Your task to perform on an android device: change alarm snooze length Image 0: 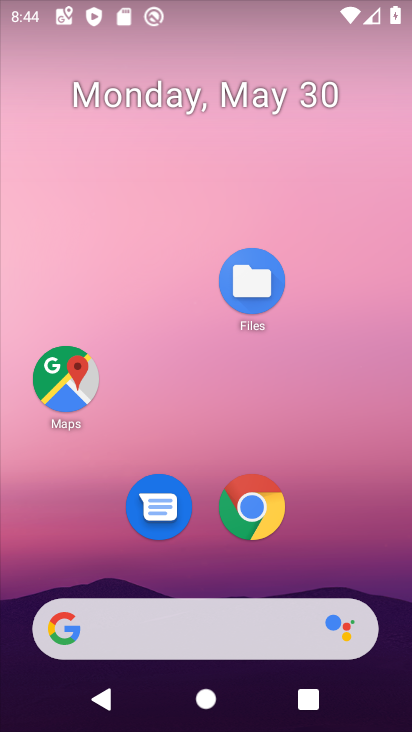
Step 0: drag from (178, 552) to (188, 297)
Your task to perform on an android device: change alarm snooze length Image 1: 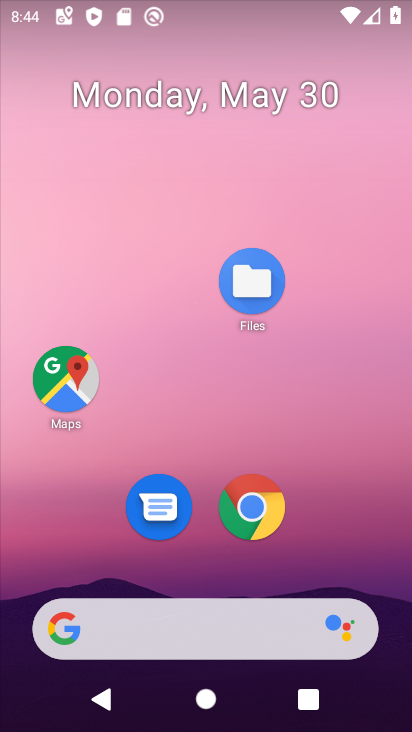
Step 1: drag from (197, 568) to (232, 173)
Your task to perform on an android device: change alarm snooze length Image 2: 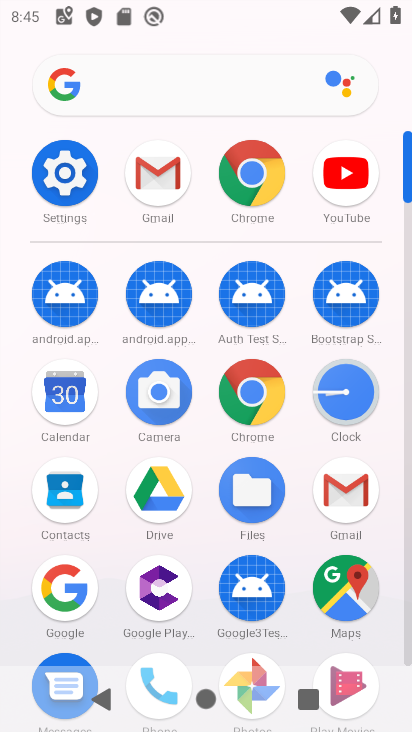
Step 2: click (355, 397)
Your task to perform on an android device: change alarm snooze length Image 3: 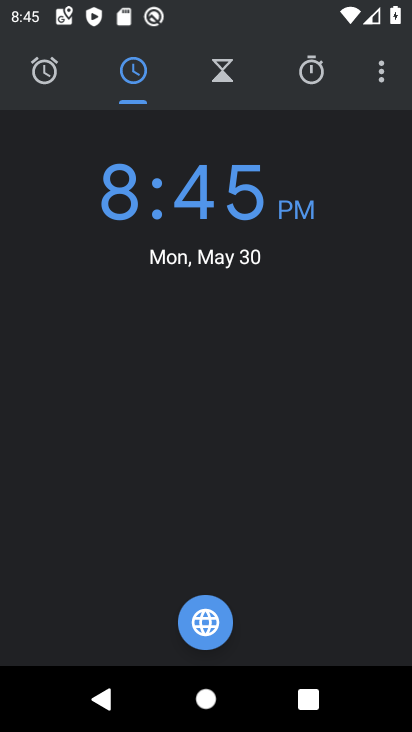
Step 3: click (385, 76)
Your task to perform on an android device: change alarm snooze length Image 4: 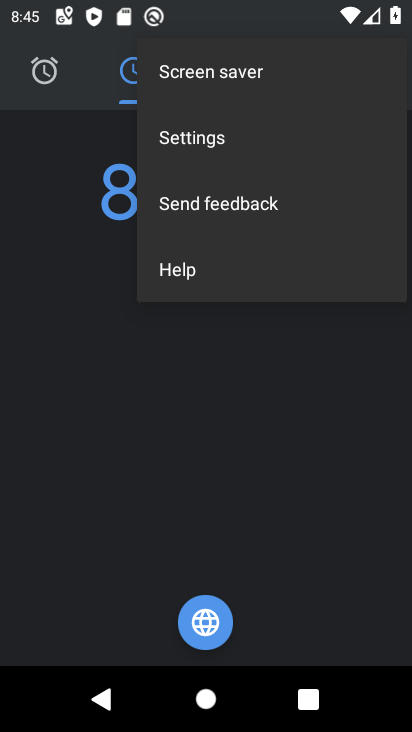
Step 4: click (215, 147)
Your task to perform on an android device: change alarm snooze length Image 5: 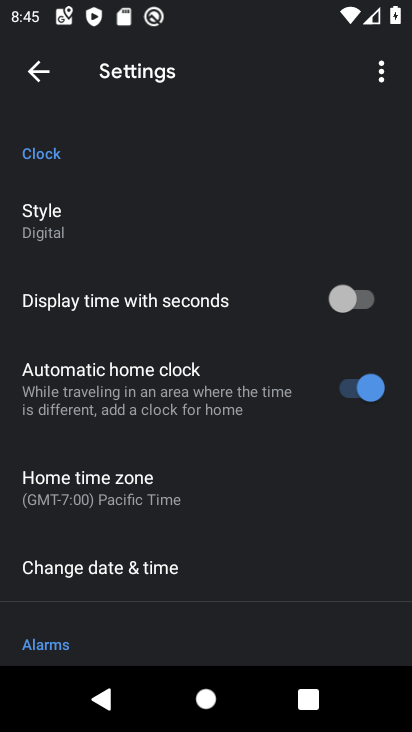
Step 5: drag from (148, 463) to (179, 325)
Your task to perform on an android device: change alarm snooze length Image 6: 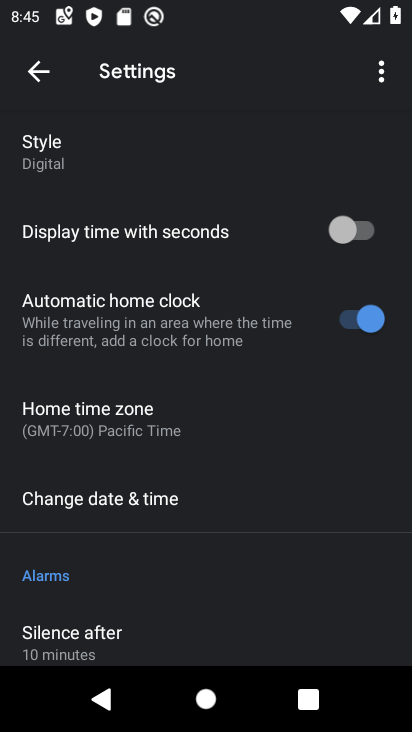
Step 6: drag from (117, 572) to (140, 375)
Your task to perform on an android device: change alarm snooze length Image 7: 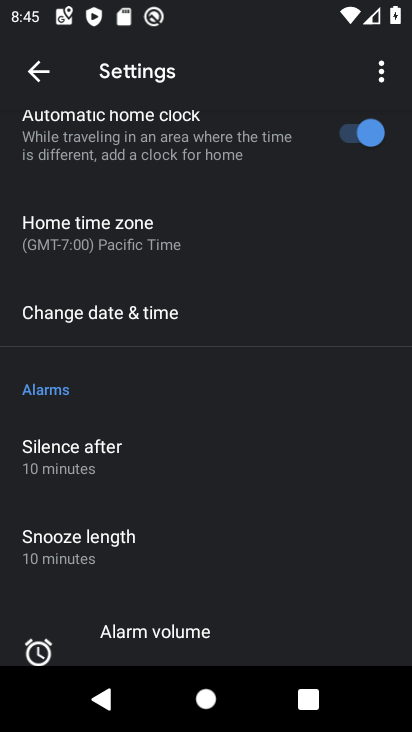
Step 7: click (73, 559)
Your task to perform on an android device: change alarm snooze length Image 8: 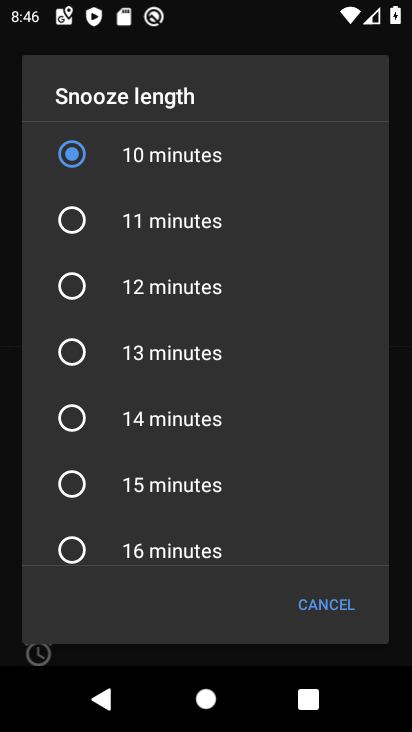
Step 8: click (53, 422)
Your task to perform on an android device: change alarm snooze length Image 9: 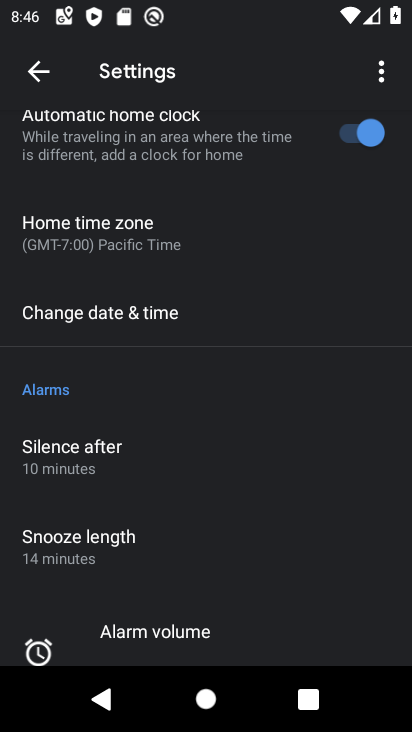
Step 9: task complete